Your task to perform on an android device: search for starred emails in the gmail app Image 0: 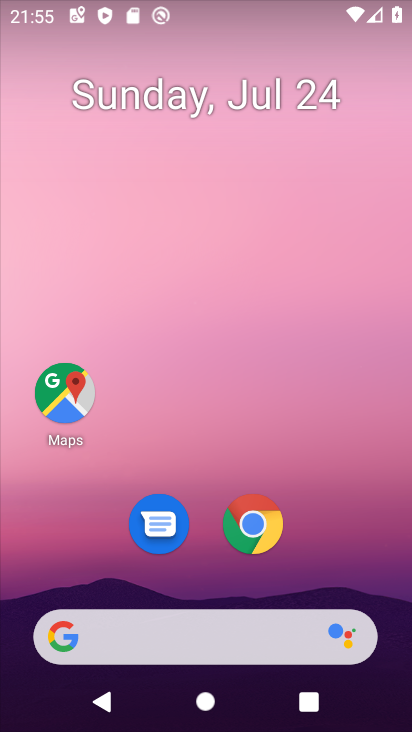
Step 0: drag from (252, 539) to (373, 101)
Your task to perform on an android device: search for starred emails in the gmail app Image 1: 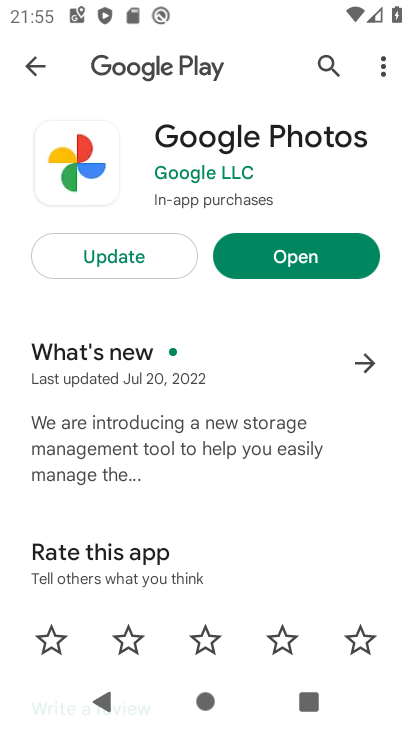
Step 1: press home button
Your task to perform on an android device: search for starred emails in the gmail app Image 2: 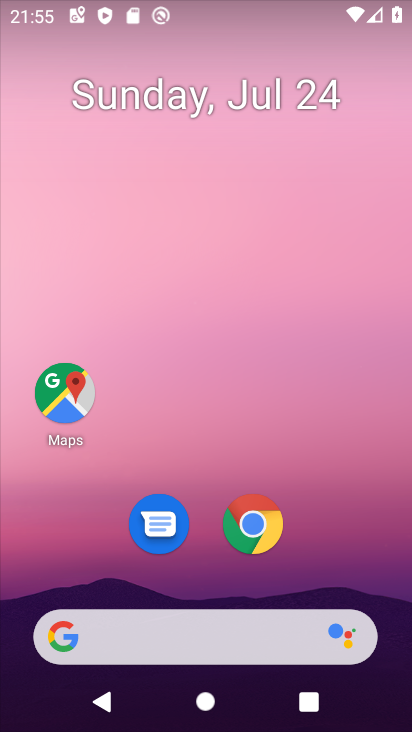
Step 2: drag from (192, 639) to (358, 163)
Your task to perform on an android device: search for starred emails in the gmail app Image 3: 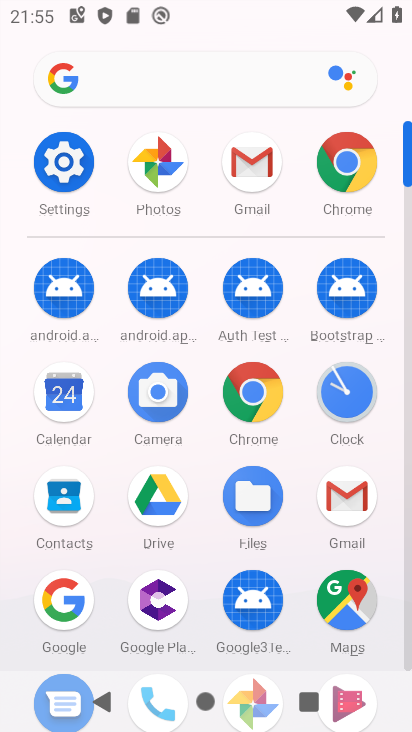
Step 3: click (265, 174)
Your task to perform on an android device: search for starred emails in the gmail app Image 4: 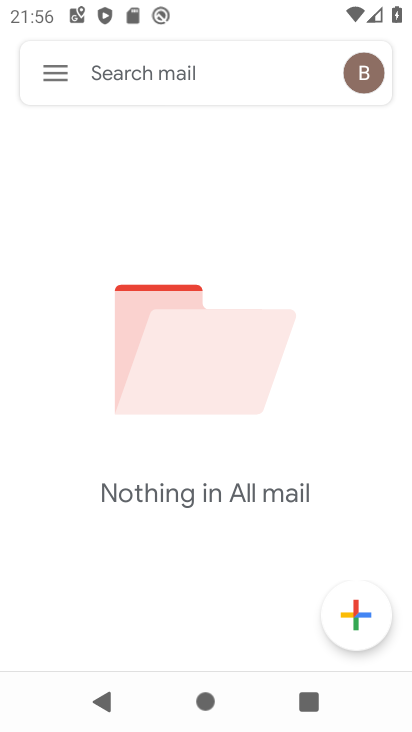
Step 4: task complete